Your task to perform on an android device: Open the map Image 0: 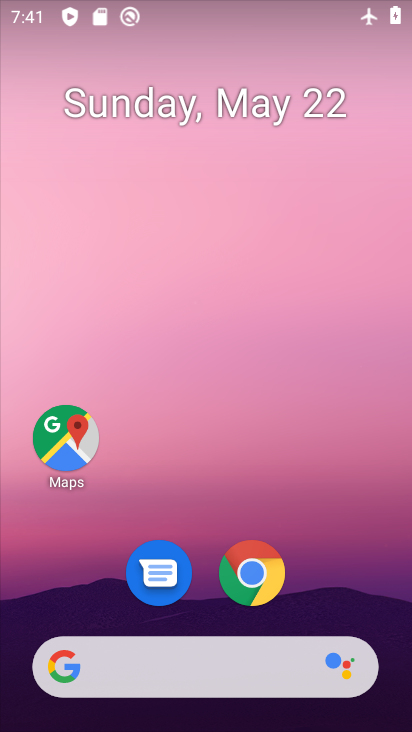
Step 0: drag from (304, 615) to (275, 70)
Your task to perform on an android device: Open the map Image 1: 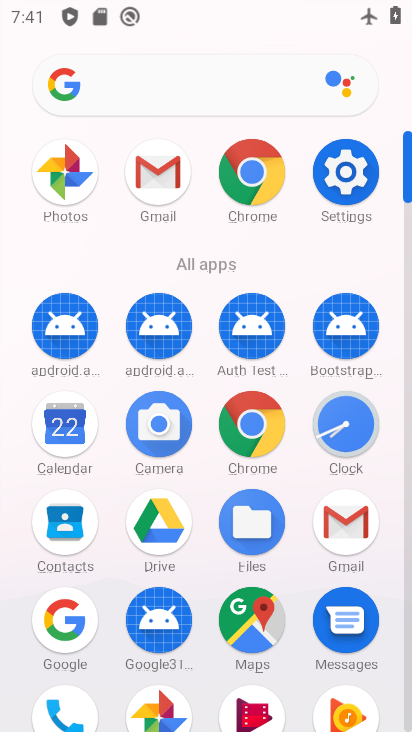
Step 1: click (236, 637)
Your task to perform on an android device: Open the map Image 2: 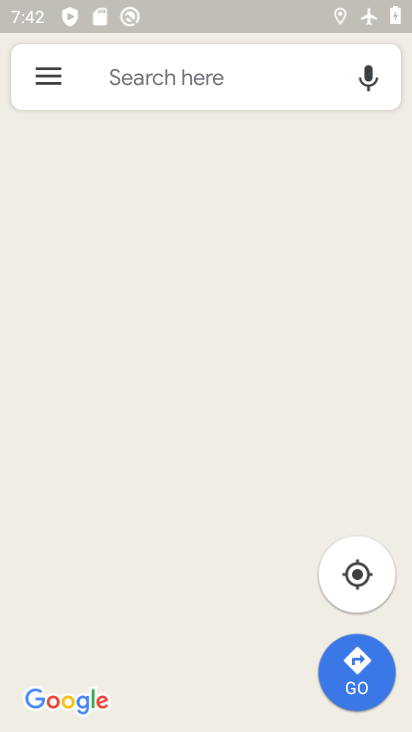
Step 2: task complete